Your task to perform on an android device: Open Youtube and go to the subscriptions tab Image 0: 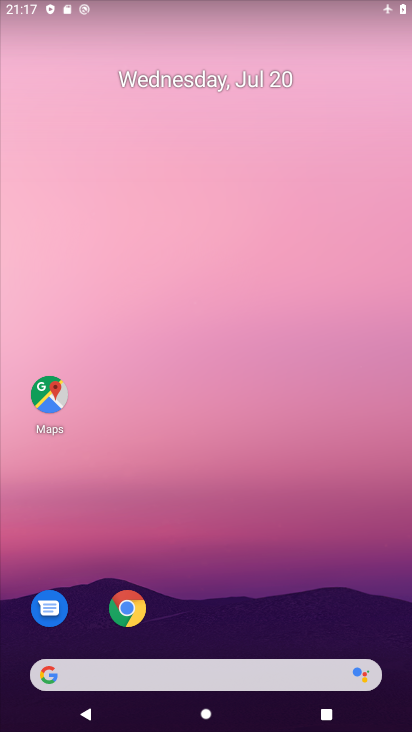
Step 0: drag from (254, 680) to (227, 163)
Your task to perform on an android device: Open Youtube and go to the subscriptions tab Image 1: 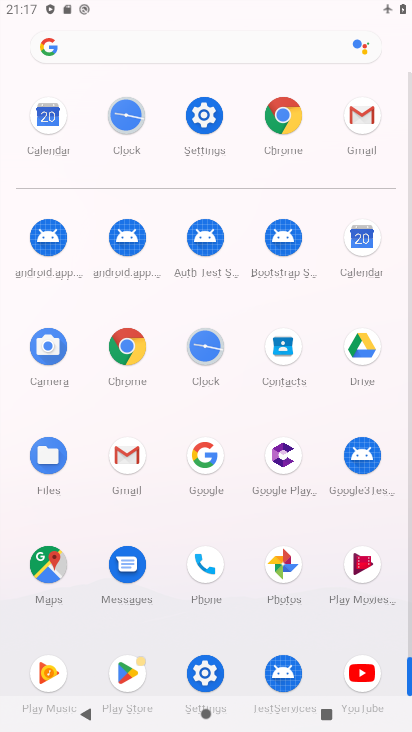
Step 1: click (370, 681)
Your task to perform on an android device: Open Youtube and go to the subscriptions tab Image 2: 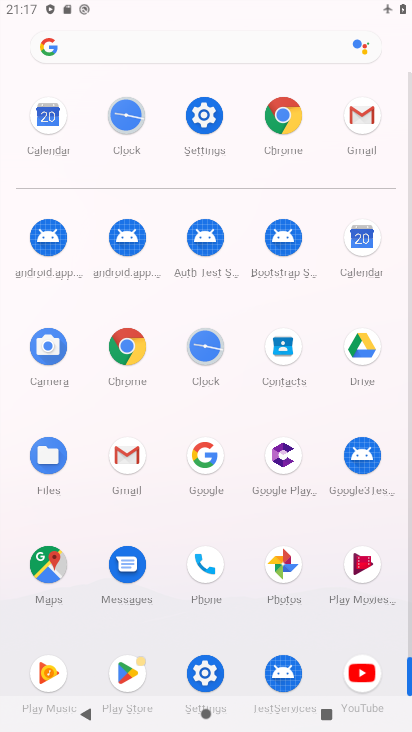
Step 2: click (370, 681)
Your task to perform on an android device: Open Youtube and go to the subscriptions tab Image 3: 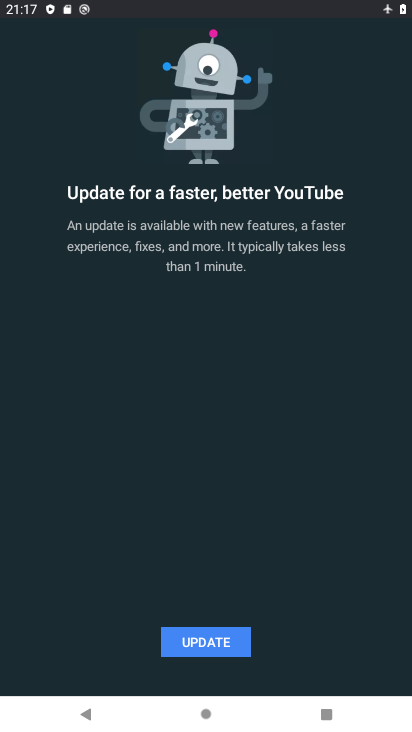
Step 3: click (212, 645)
Your task to perform on an android device: Open Youtube and go to the subscriptions tab Image 4: 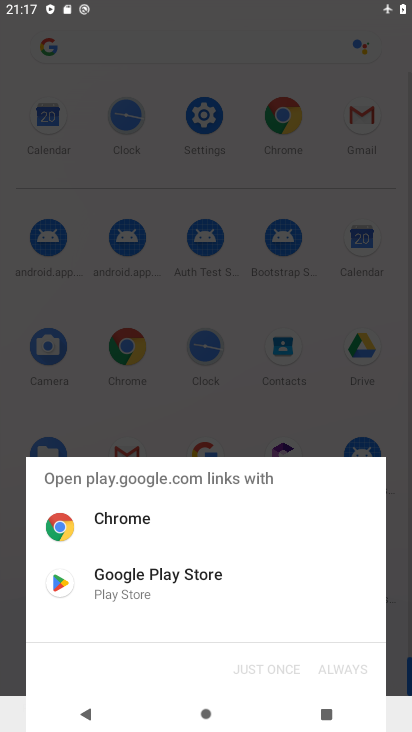
Step 4: click (118, 570)
Your task to perform on an android device: Open Youtube and go to the subscriptions tab Image 5: 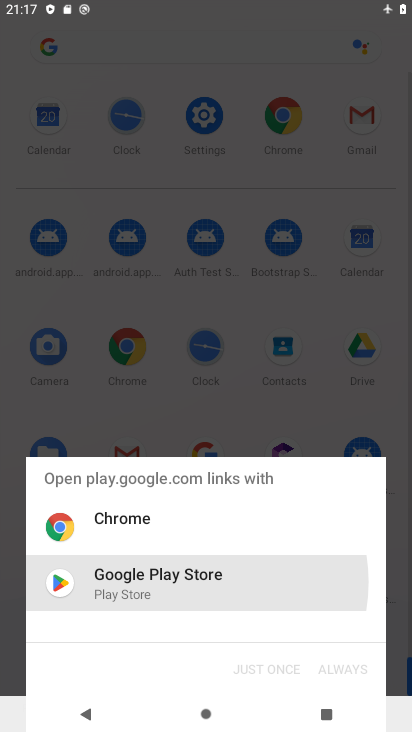
Step 5: click (119, 575)
Your task to perform on an android device: Open Youtube and go to the subscriptions tab Image 6: 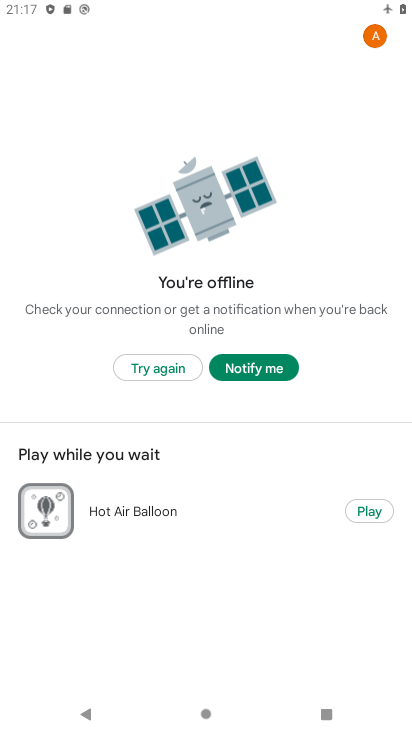
Step 6: task complete